Your task to perform on an android device: Open wifi settings Image 0: 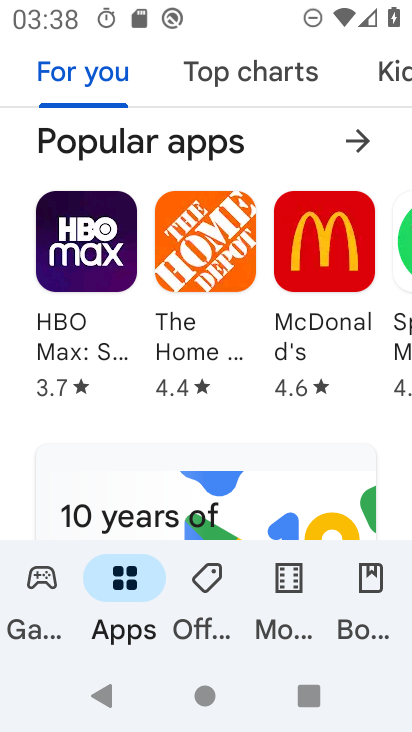
Step 0: press home button
Your task to perform on an android device: Open wifi settings Image 1: 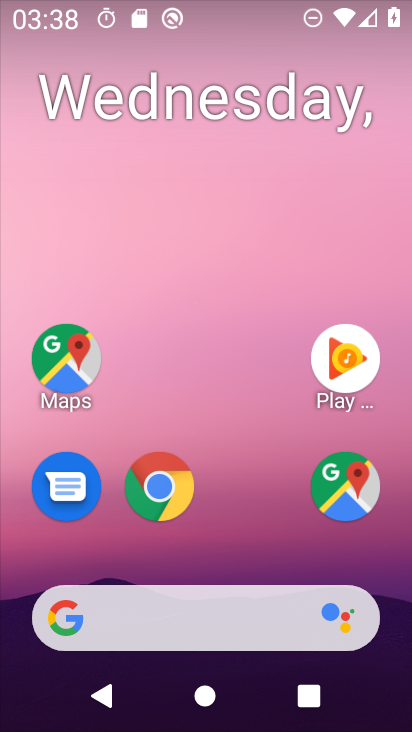
Step 1: drag from (250, 530) to (233, 143)
Your task to perform on an android device: Open wifi settings Image 2: 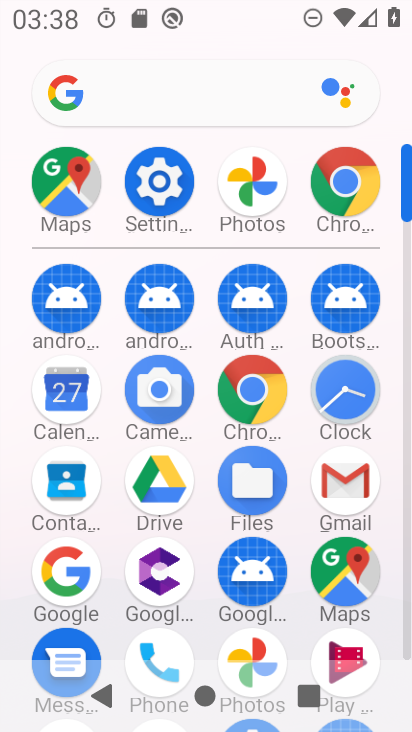
Step 2: click (160, 192)
Your task to perform on an android device: Open wifi settings Image 3: 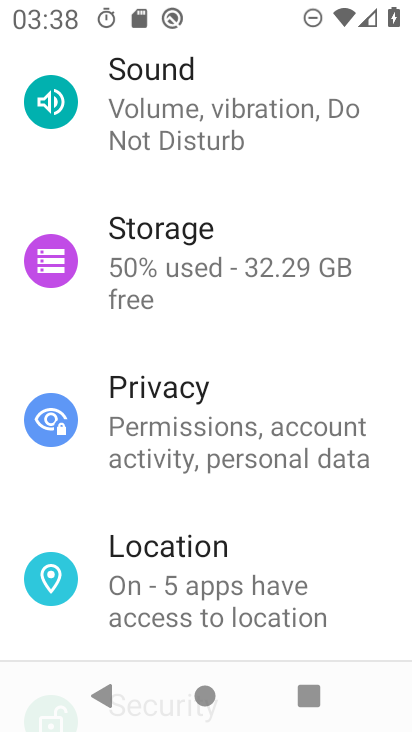
Step 3: drag from (359, 203) to (369, 288)
Your task to perform on an android device: Open wifi settings Image 4: 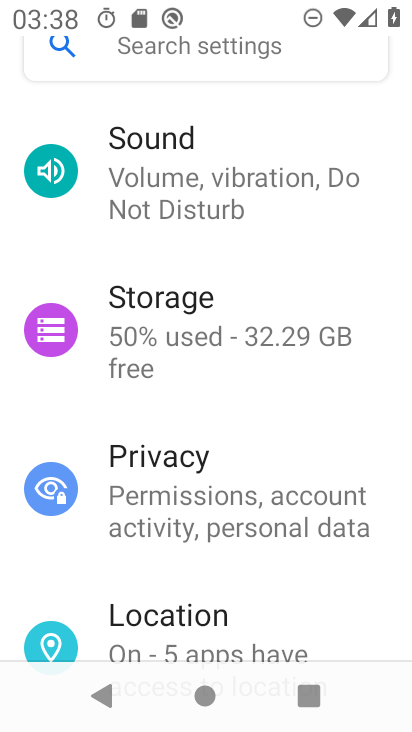
Step 4: drag from (371, 234) to (374, 286)
Your task to perform on an android device: Open wifi settings Image 5: 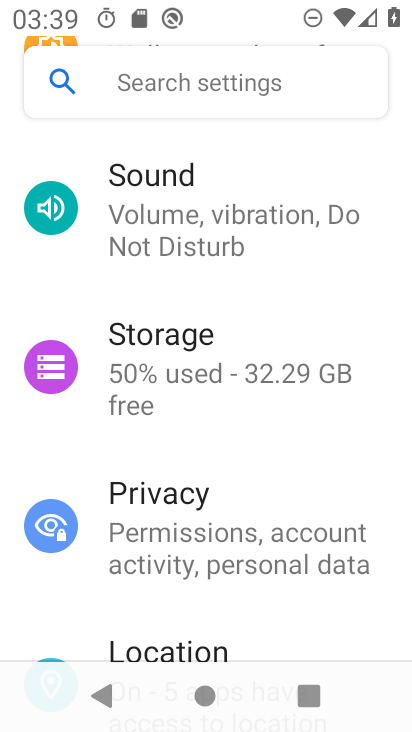
Step 5: drag from (377, 179) to (381, 246)
Your task to perform on an android device: Open wifi settings Image 6: 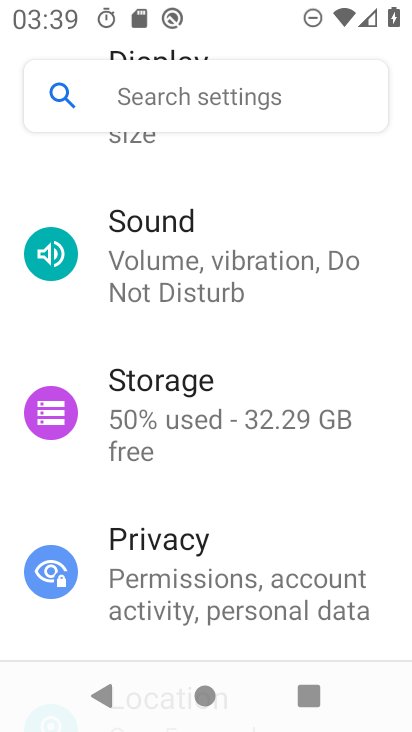
Step 6: drag from (372, 160) to (376, 252)
Your task to perform on an android device: Open wifi settings Image 7: 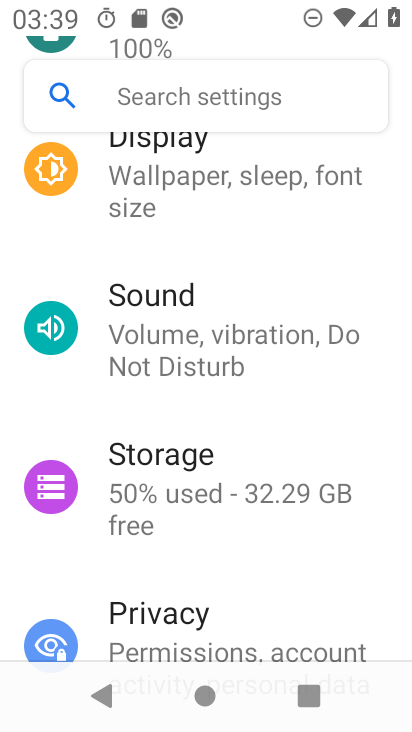
Step 7: drag from (382, 160) to (382, 284)
Your task to perform on an android device: Open wifi settings Image 8: 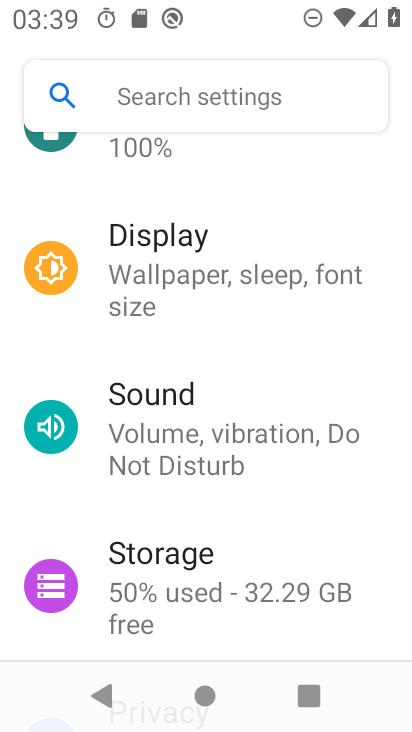
Step 8: drag from (381, 161) to (387, 341)
Your task to perform on an android device: Open wifi settings Image 9: 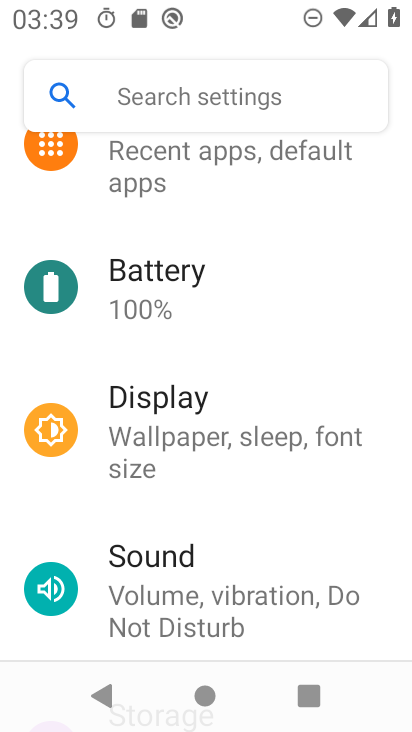
Step 9: drag from (371, 168) to (369, 327)
Your task to perform on an android device: Open wifi settings Image 10: 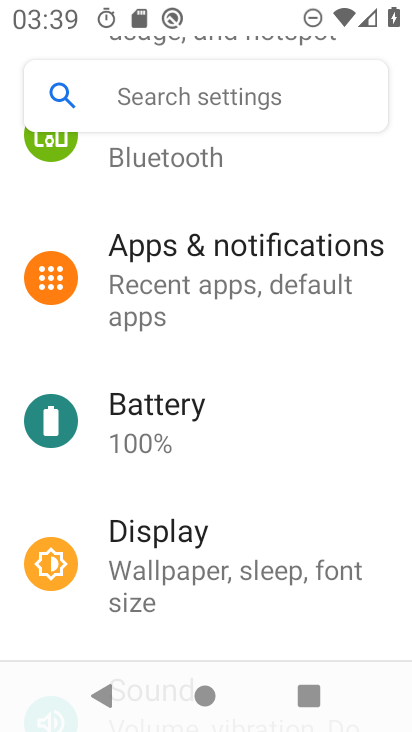
Step 10: drag from (368, 177) to (360, 378)
Your task to perform on an android device: Open wifi settings Image 11: 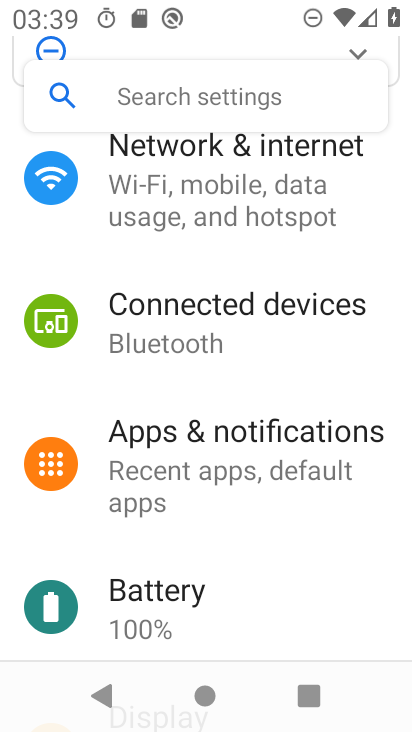
Step 11: click (308, 203)
Your task to perform on an android device: Open wifi settings Image 12: 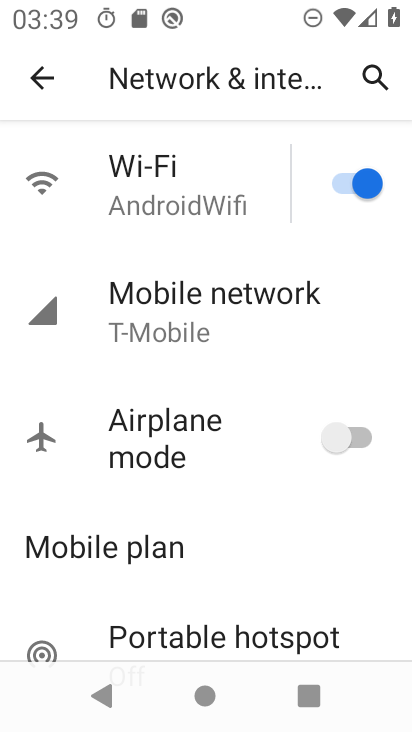
Step 12: click (190, 198)
Your task to perform on an android device: Open wifi settings Image 13: 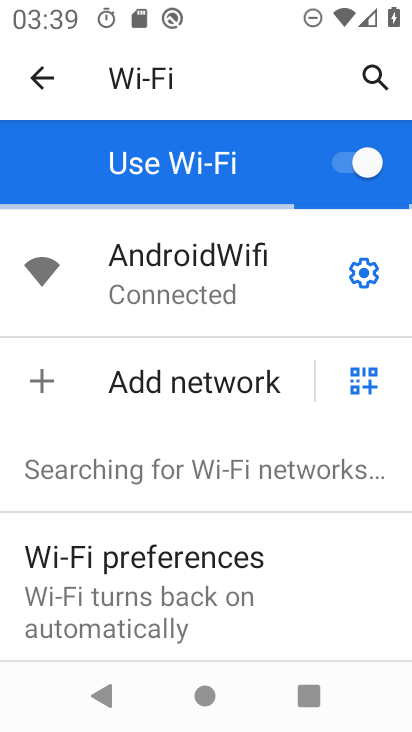
Step 13: task complete